Your task to perform on an android device: Show me popular games on the Play Store Image 0: 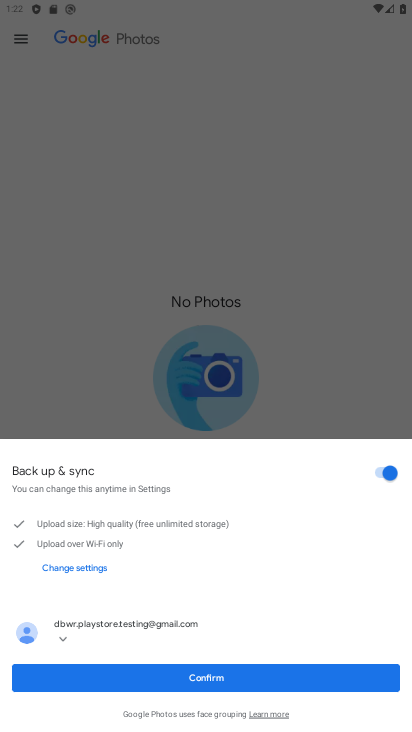
Step 0: press home button
Your task to perform on an android device: Show me popular games on the Play Store Image 1: 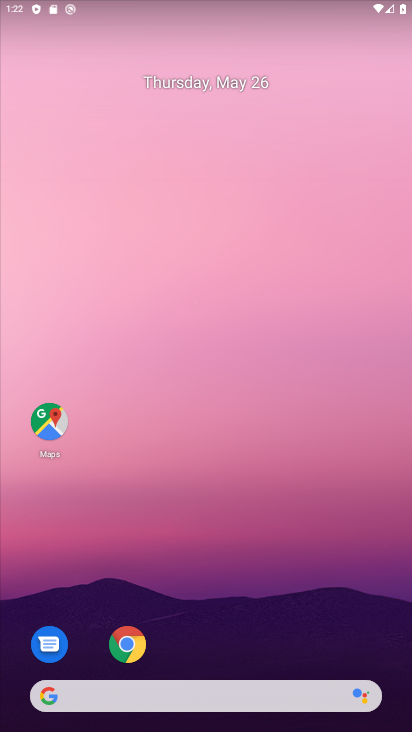
Step 1: drag from (238, 643) to (152, 99)
Your task to perform on an android device: Show me popular games on the Play Store Image 2: 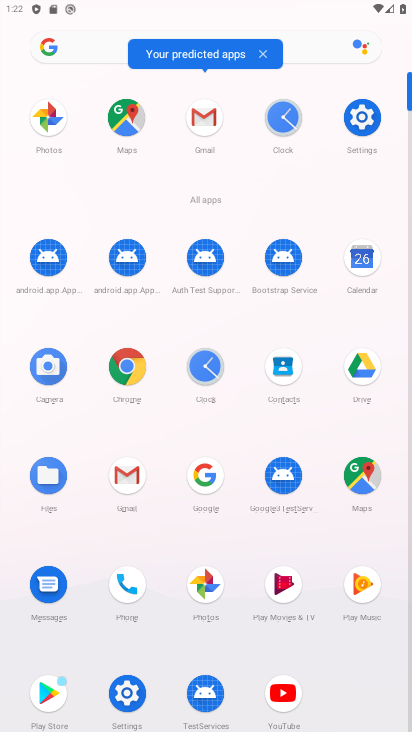
Step 2: click (40, 692)
Your task to perform on an android device: Show me popular games on the Play Store Image 3: 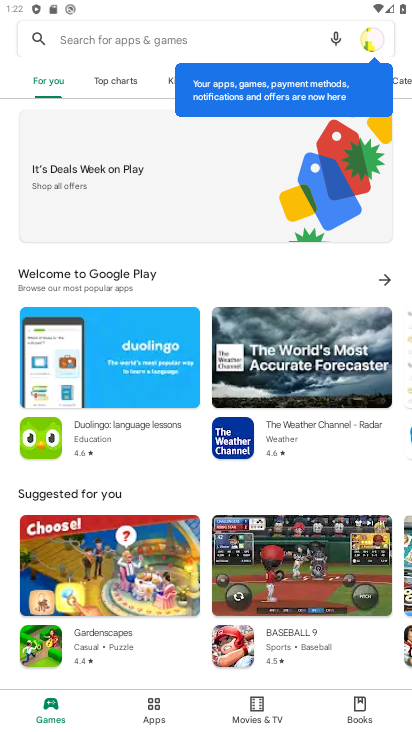
Step 3: click (113, 284)
Your task to perform on an android device: Show me popular games on the Play Store Image 4: 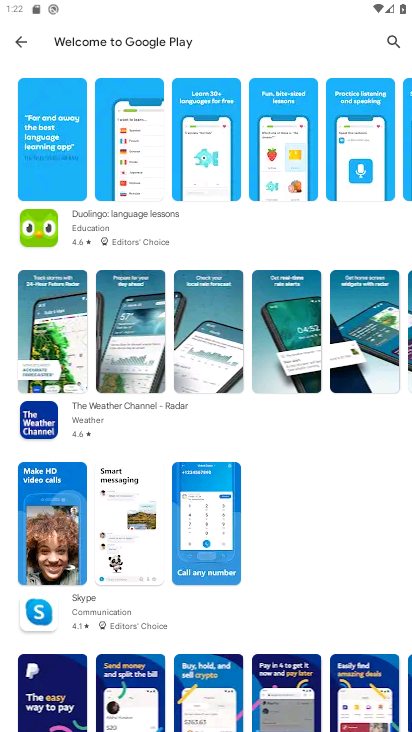
Step 4: task complete